Your task to perform on an android device: show emergency info Image 0: 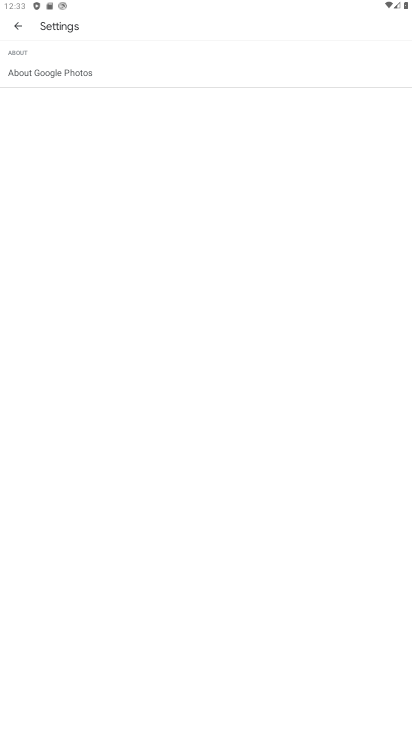
Step 0: press home button
Your task to perform on an android device: show emergency info Image 1: 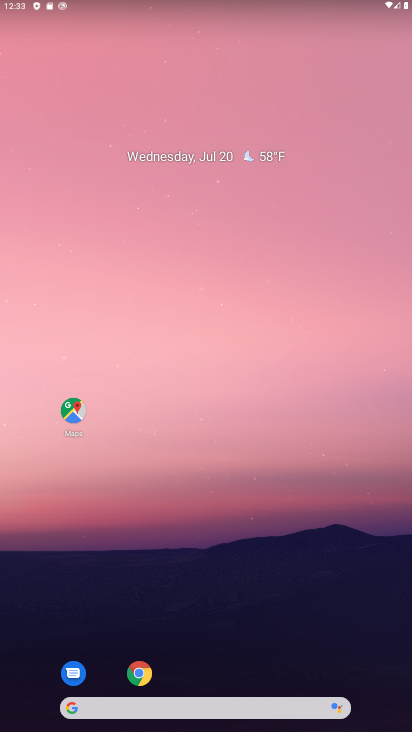
Step 1: drag from (279, 566) to (256, 36)
Your task to perform on an android device: show emergency info Image 2: 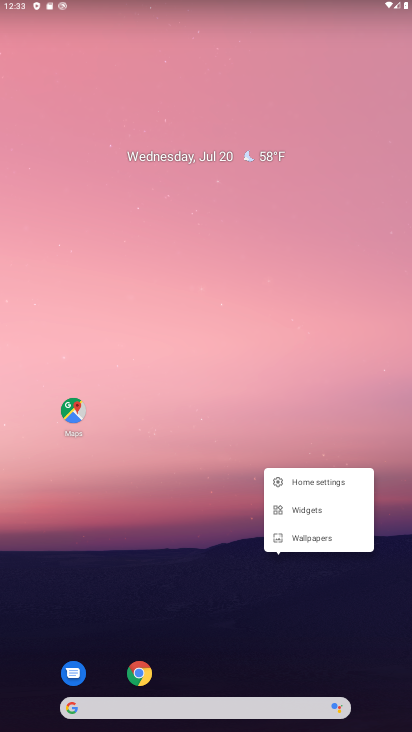
Step 2: click (140, 619)
Your task to perform on an android device: show emergency info Image 3: 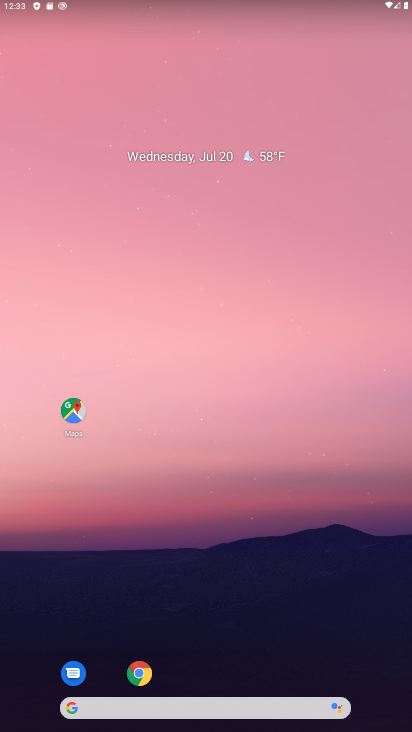
Step 3: drag from (223, 632) to (256, 56)
Your task to perform on an android device: show emergency info Image 4: 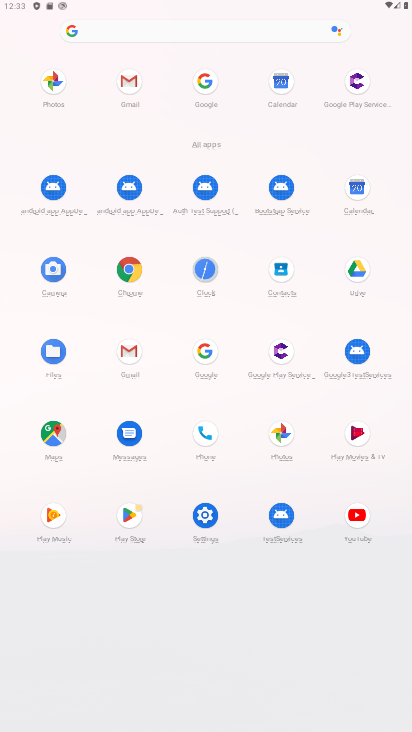
Step 4: click (206, 513)
Your task to perform on an android device: show emergency info Image 5: 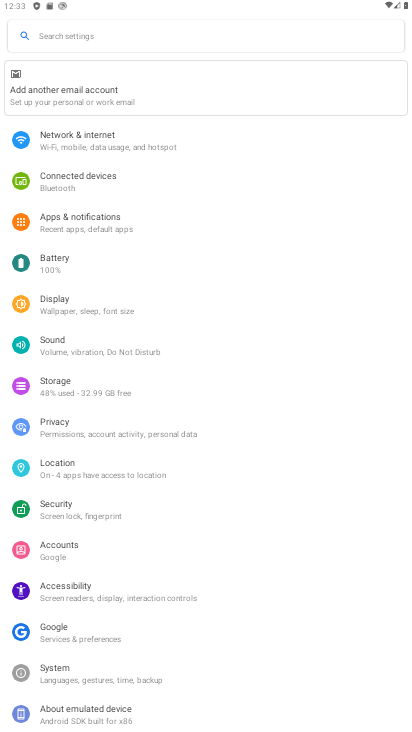
Step 5: click (103, 713)
Your task to perform on an android device: show emergency info Image 6: 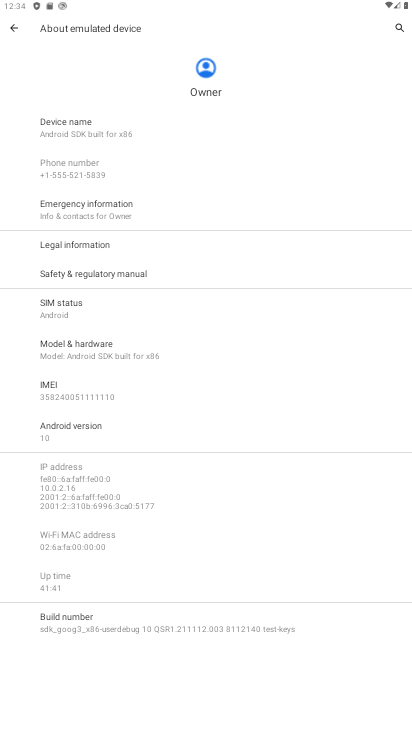
Step 6: click (132, 206)
Your task to perform on an android device: show emergency info Image 7: 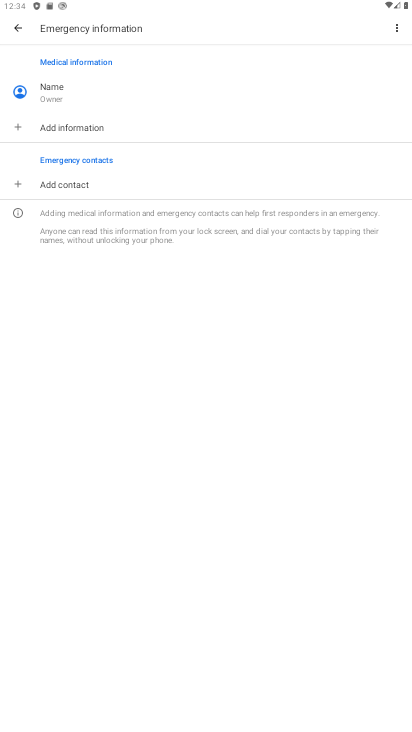
Step 7: task complete